Your task to perform on an android device: toggle pop-ups in chrome Image 0: 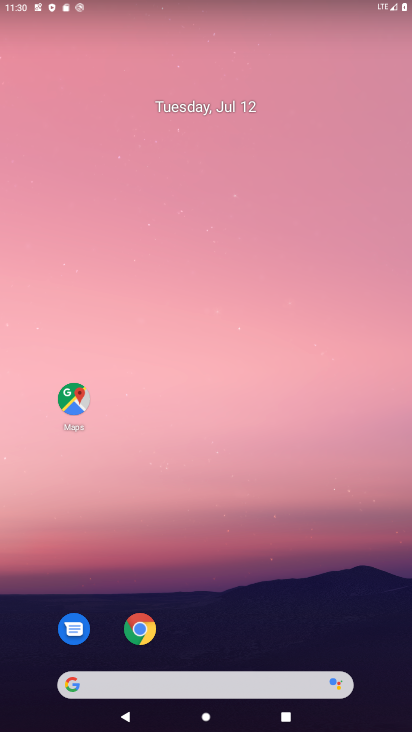
Step 0: press home button
Your task to perform on an android device: toggle pop-ups in chrome Image 1: 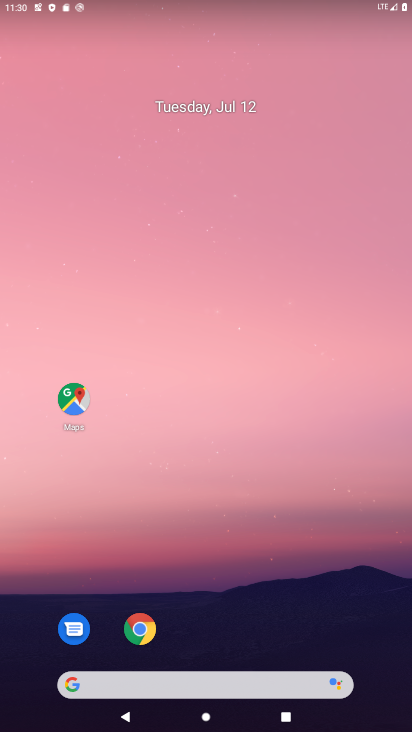
Step 1: click (137, 623)
Your task to perform on an android device: toggle pop-ups in chrome Image 2: 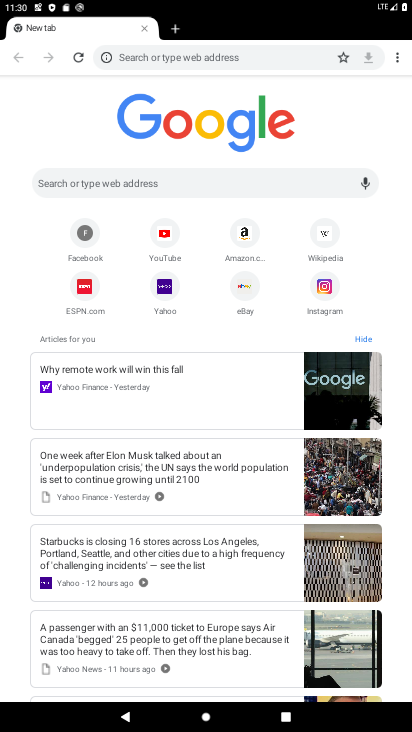
Step 2: click (397, 58)
Your task to perform on an android device: toggle pop-ups in chrome Image 3: 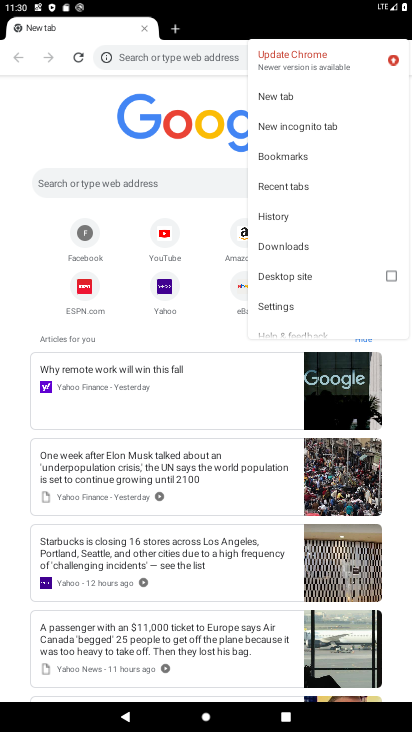
Step 3: click (290, 310)
Your task to perform on an android device: toggle pop-ups in chrome Image 4: 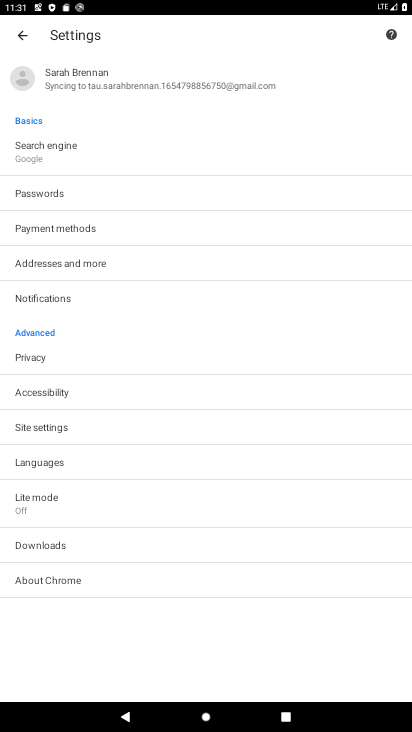
Step 4: click (69, 431)
Your task to perform on an android device: toggle pop-ups in chrome Image 5: 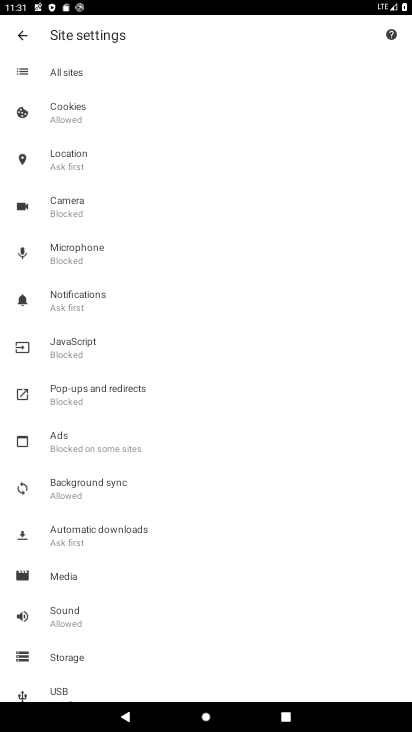
Step 5: click (111, 395)
Your task to perform on an android device: toggle pop-ups in chrome Image 6: 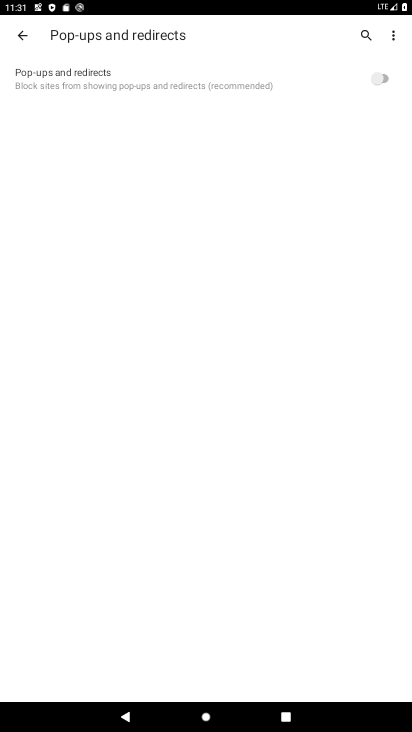
Step 6: click (381, 71)
Your task to perform on an android device: toggle pop-ups in chrome Image 7: 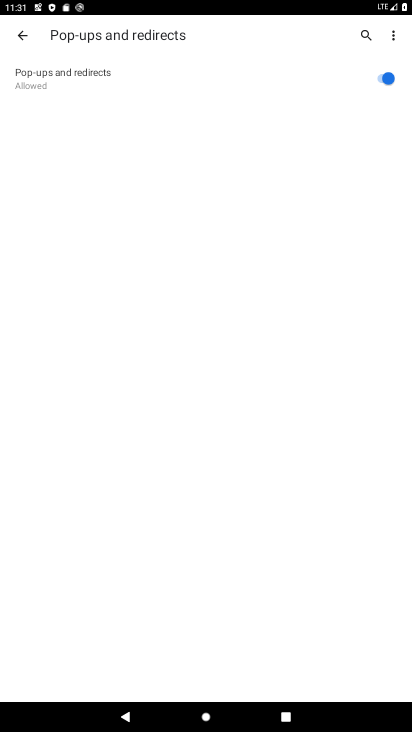
Step 7: task complete